Your task to perform on an android device: Show me popular games on the Play Store Image 0: 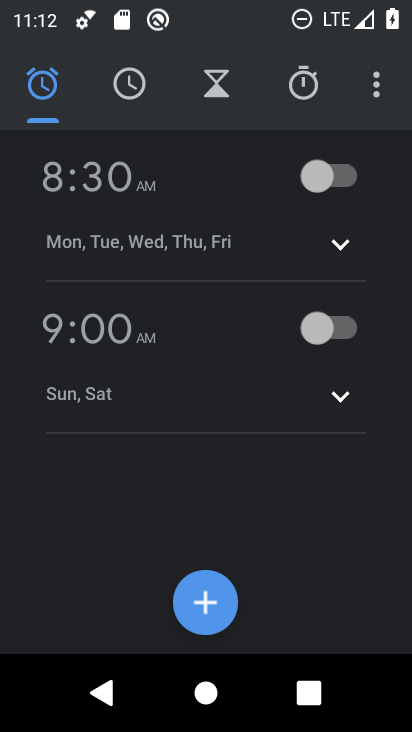
Step 0: press back button
Your task to perform on an android device: Show me popular games on the Play Store Image 1: 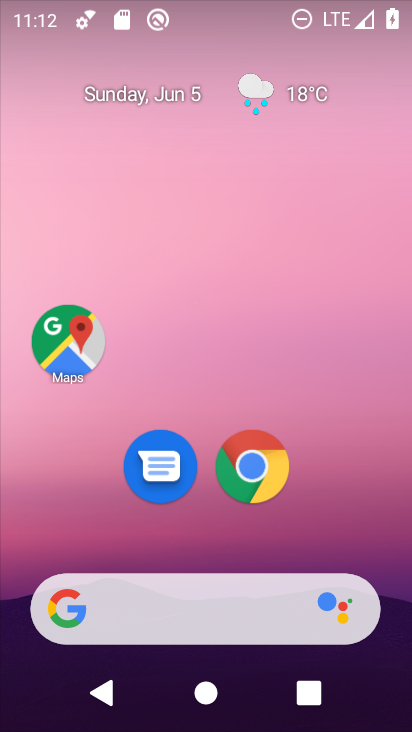
Step 1: drag from (342, 521) to (260, 6)
Your task to perform on an android device: Show me popular games on the Play Store Image 2: 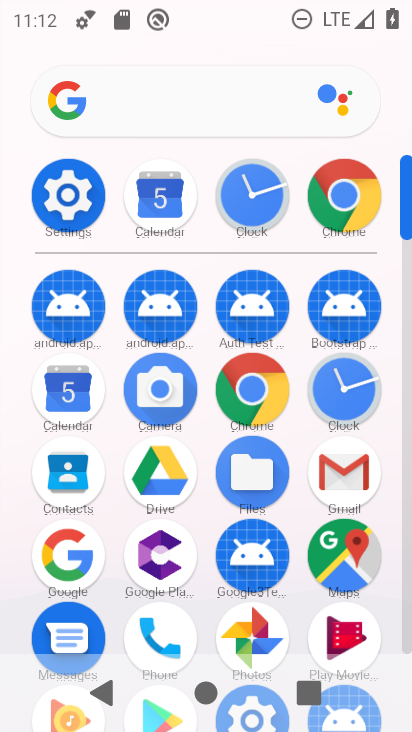
Step 2: drag from (15, 619) to (0, 204)
Your task to perform on an android device: Show me popular games on the Play Store Image 3: 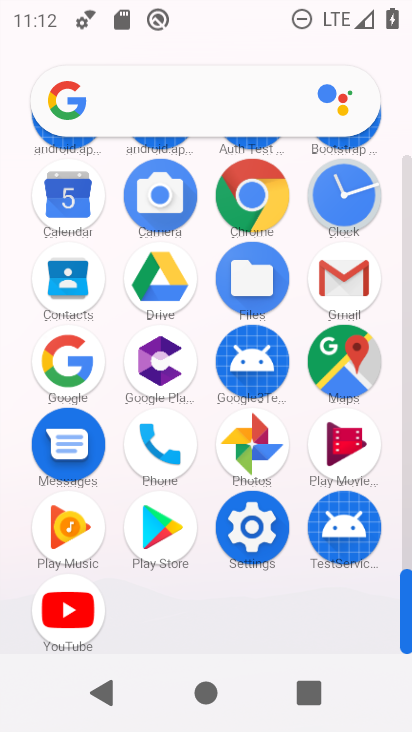
Step 3: click (145, 524)
Your task to perform on an android device: Show me popular games on the Play Store Image 4: 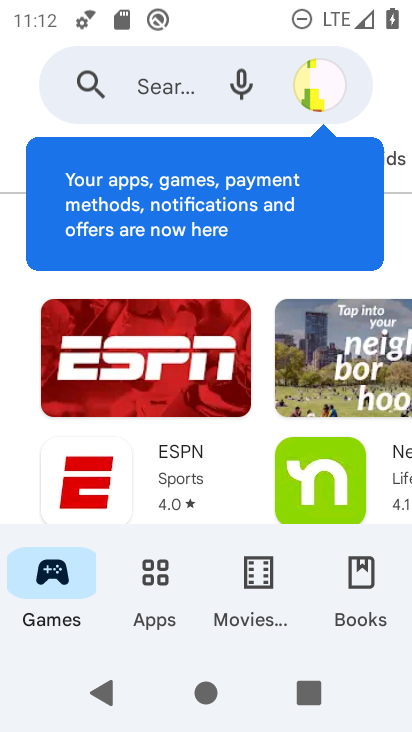
Step 4: task complete